Your task to perform on an android device: Open location settings Image 0: 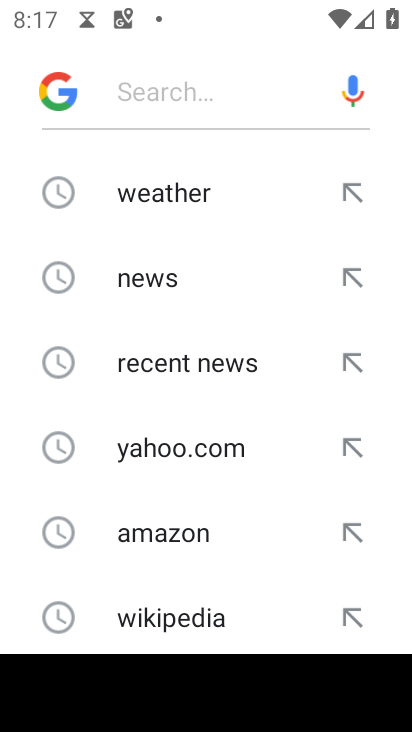
Step 0: press home button
Your task to perform on an android device: Open location settings Image 1: 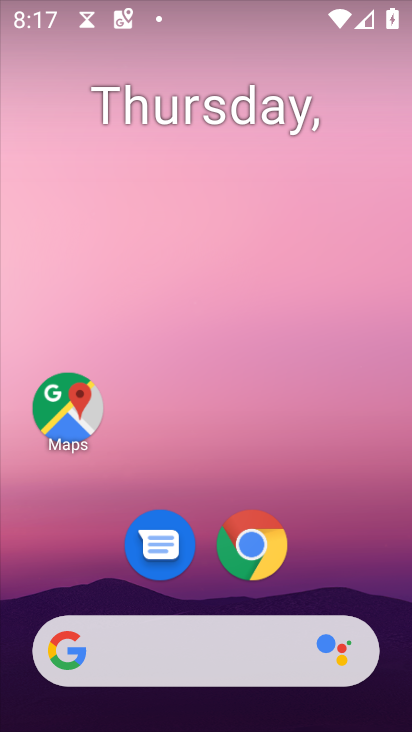
Step 1: drag from (313, 584) to (240, 125)
Your task to perform on an android device: Open location settings Image 2: 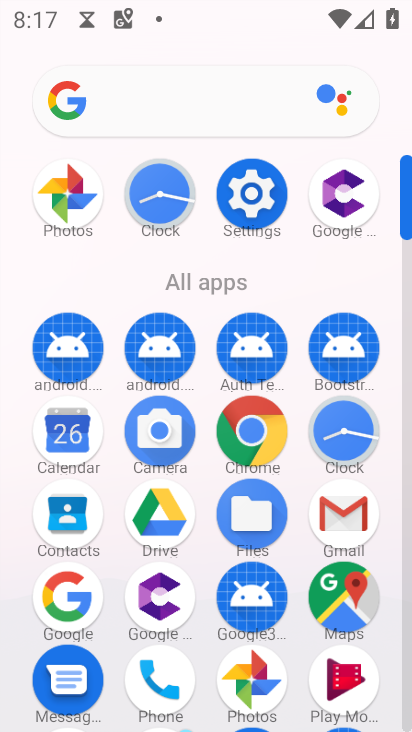
Step 2: click (251, 194)
Your task to perform on an android device: Open location settings Image 3: 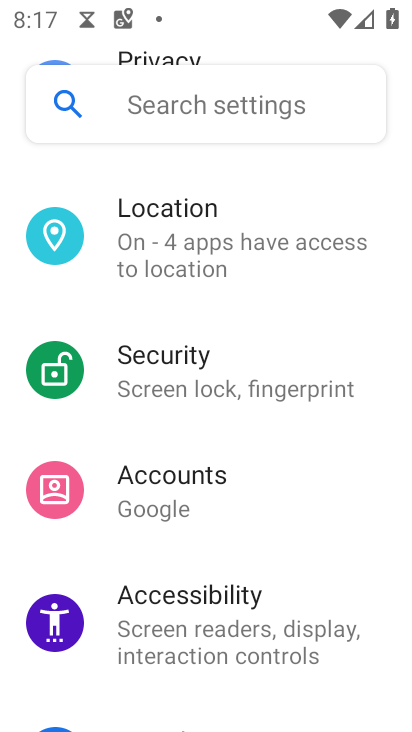
Step 3: click (192, 205)
Your task to perform on an android device: Open location settings Image 4: 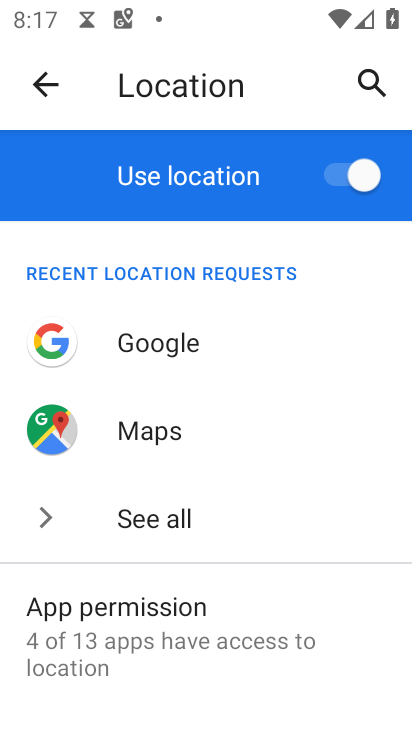
Step 4: task complete